Your task to perform on an android device: change the clock display to analog Image 0: 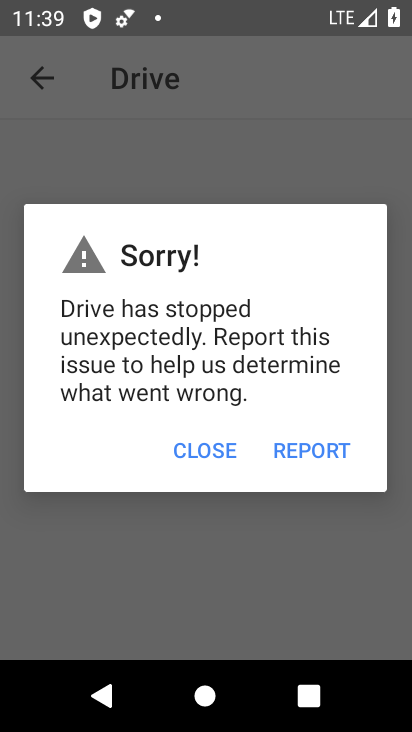
Step 0: press home button
Your task to perform on an android device: change the clock display to analog Image 1: 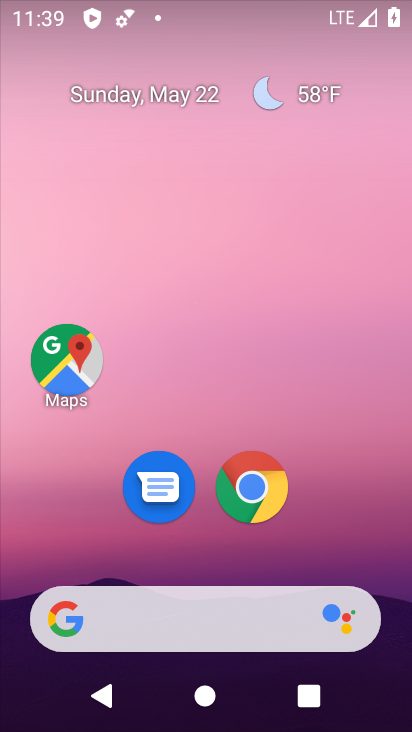
Step 1: drag from (371, 398) to (348, 84)
Your task to perform on an android device: change the clock display to analog Image 2: 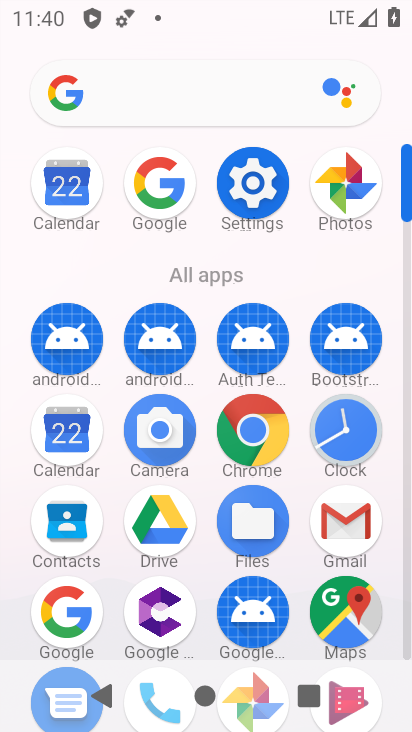
Step 2: click (335, 414)
Your task to perform on an android device: change the clock display to analog Image 3: 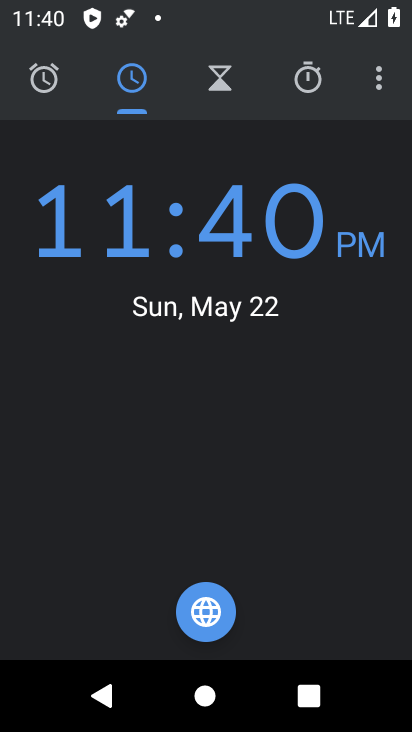
Step 3: click (373, 81)
Your task to perform on an android device: change the clock display to analog Image 4: 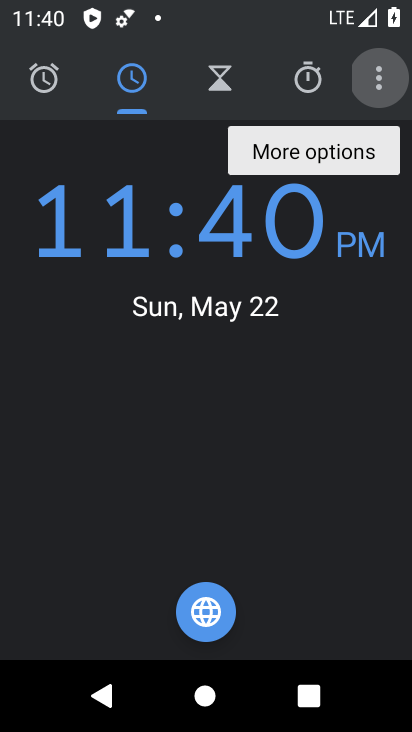
Step 4: click (373, 81)
Your task to perform on an android device: change the clock display to analog Image 5: 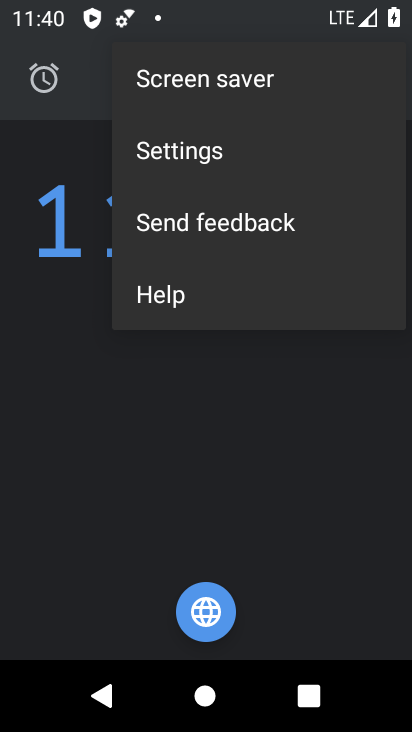
Step 5: click (183, 166)
Your task to perform on an android device: change the clock display to analog Image 6: 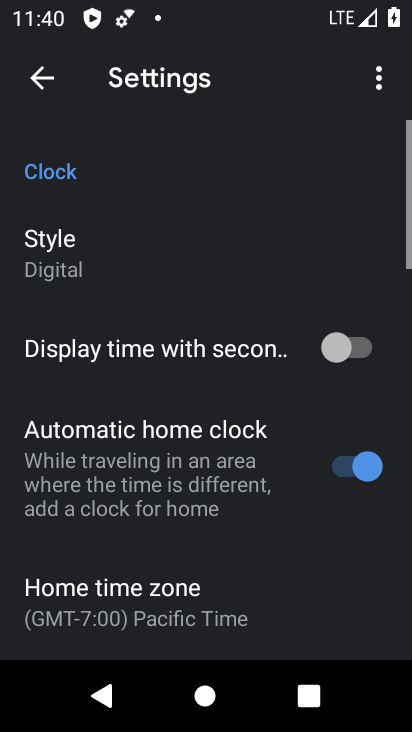
Step 6: click (50, 236)
Your task to perform on an android device: change the clock display to analog Image 7: 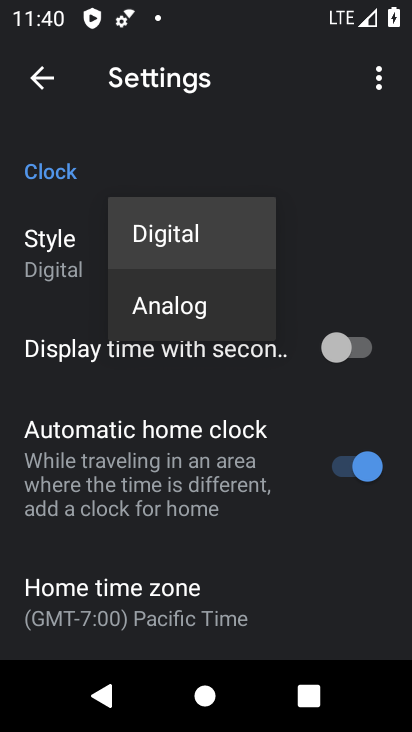
Step 7: click (131, 310)
Your task to perform on an android device: change the clock display to analog Image 8: 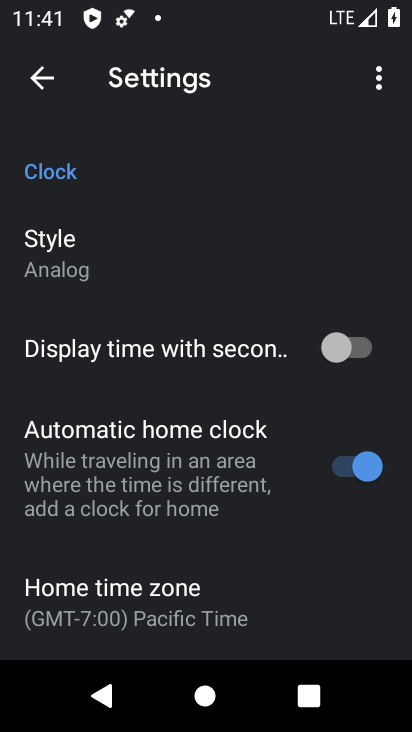
Step 8: task complete